Your task to perform on an android device: Go to settings Image 0: 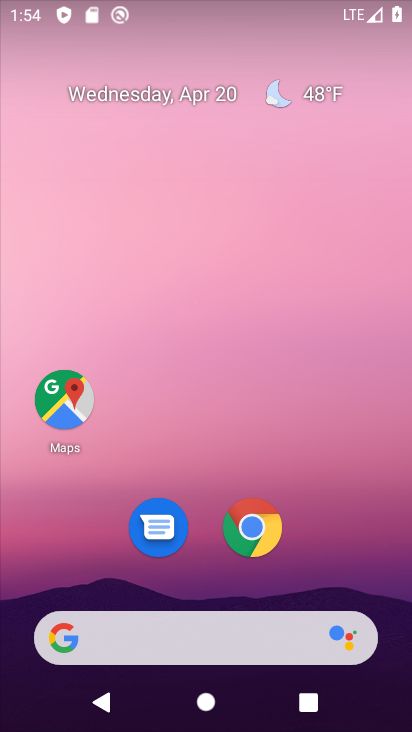
Step 0: drag from (204, 555) to (292, 19)
Your task to perform on an android device: Go to settings Image 1: 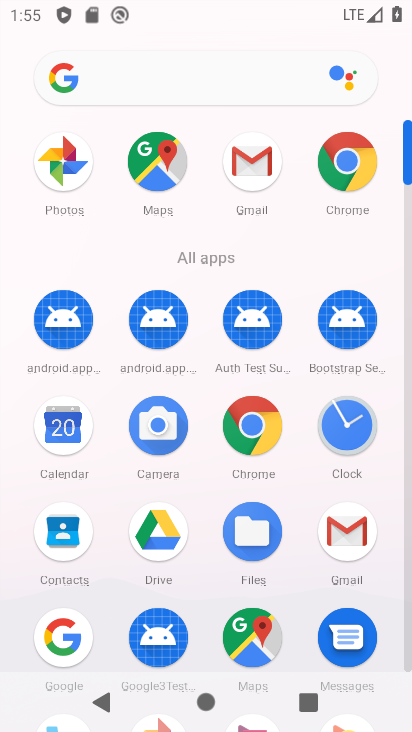
Step 1: drag from (159, 581) to (165, 113)
Your task to perform on an android device: Go to settings Image 2: 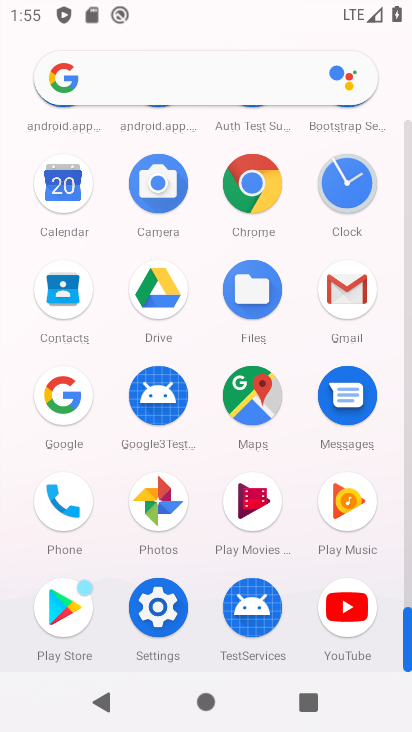
Step 2: click (167, 615)
Your task to perform on an android device: Go to settings Image 3: 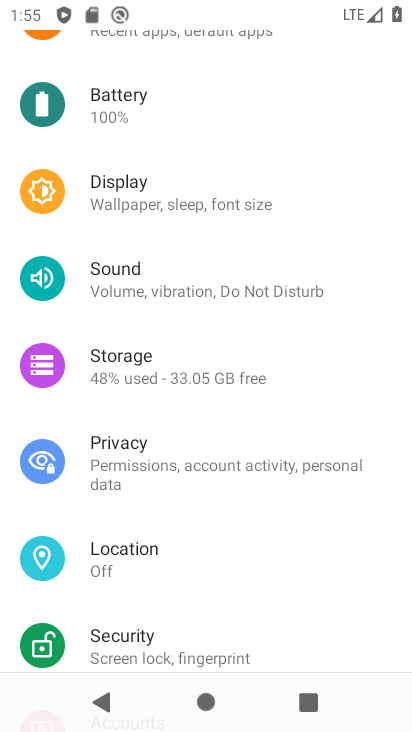
Step 3: task complete